Your task to perform on an android device: change notifications settings Image 0: 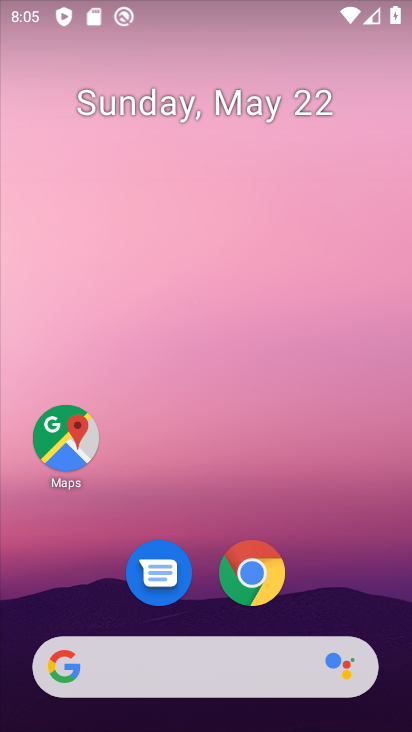
Step 0: click (245, 38)
Your task to perform on an android device: change notifications settings Image 1: 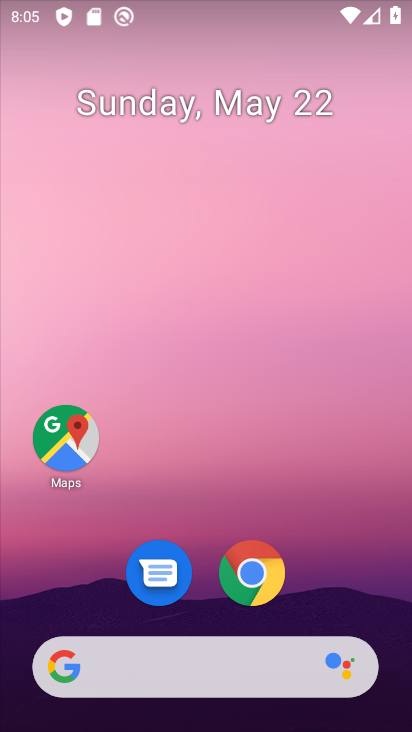
Step 1: drag from (196, 616) to (275, 93)
Your task to perform on an android device: change notifications settings Image 2: 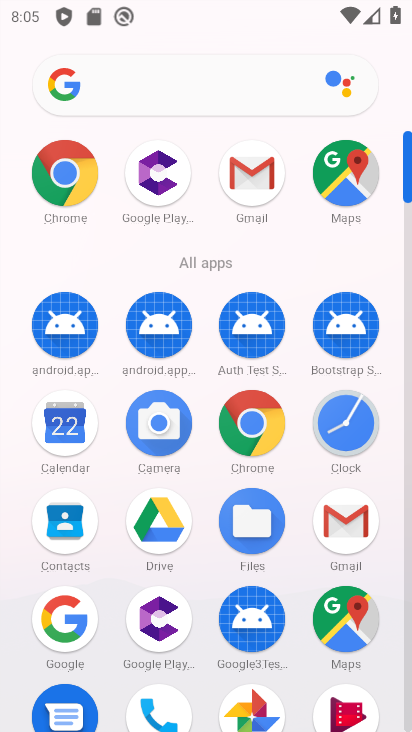
Step 2: drag from (208, 683) to (213, 182)
Your task to perform on an android device: change notifications settings Image 3: 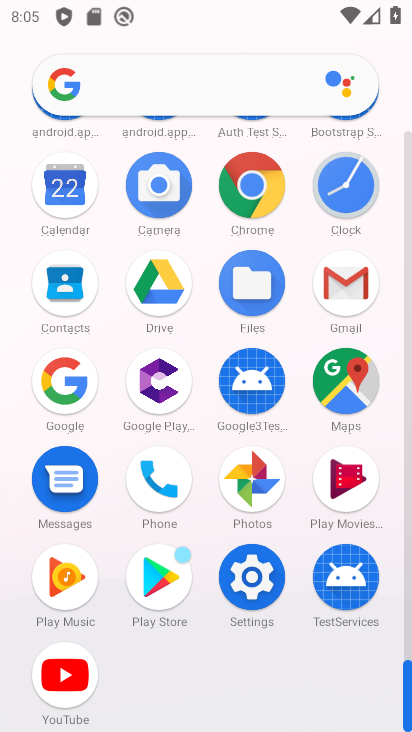
Step 3: click (251, 579)
Your task to perform on an android device: change notifications settings Image 4: 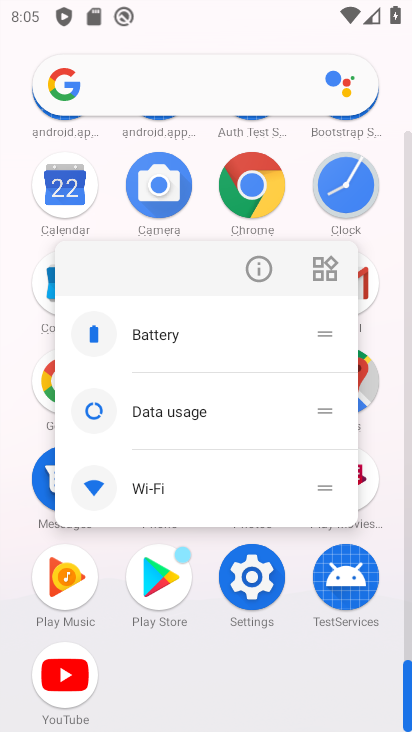
Step 4: click (268, 272)
Your task to perform on an android device: change notifications settings Image 5: 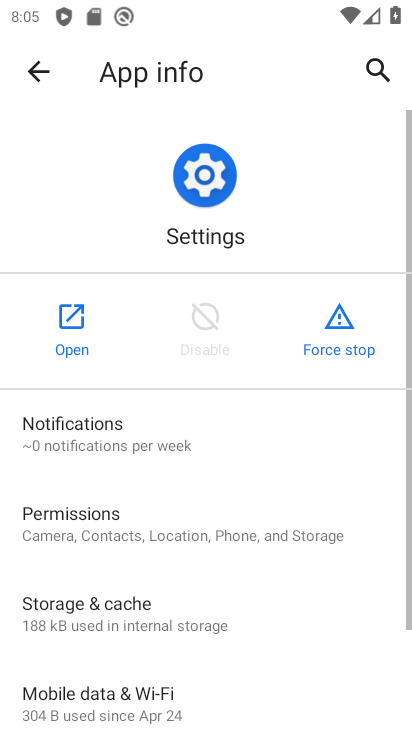
Step 5: click (75, 332)
Your task to perform on an android device: change notifications settings Image 6: 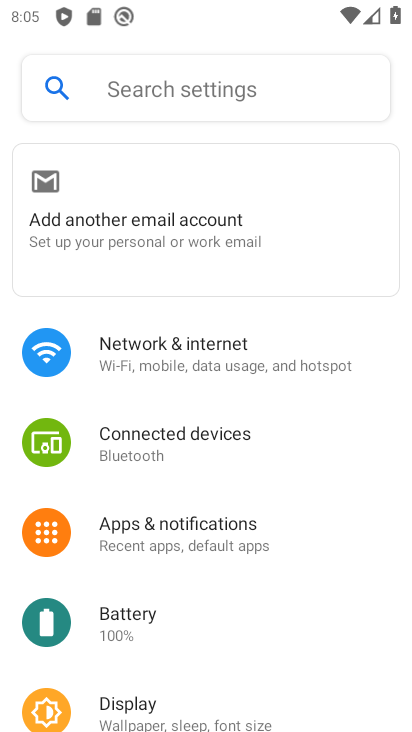
Step 6: click (168, 531)
Your task to perform on an android device: change notifications settings Image 7: 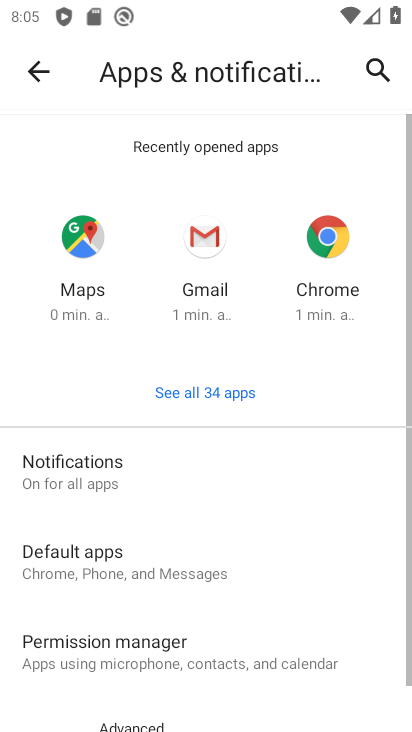
Step 7: drag from (204, 553) to (283, 148)
Your task to perform on an android device: change notifications settings Image 8: 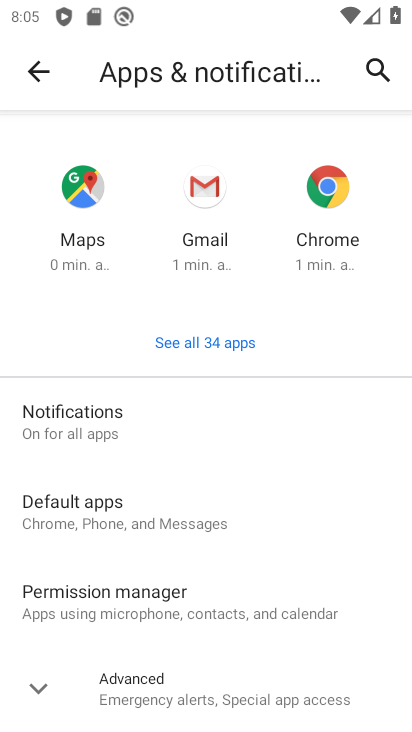
Step 8: click (155, 442)
Your task to perform on an android device: change notifications settings Image 9: 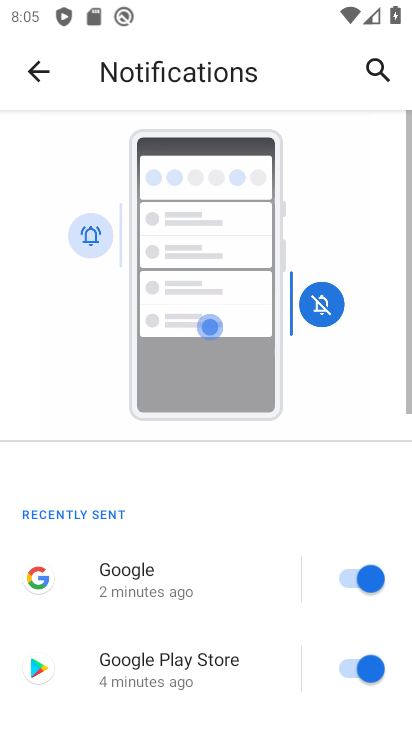
Step 9: drag from (218, 515) to (293, 71)
Your task to perform on an android device: change notifications settings Image 10: 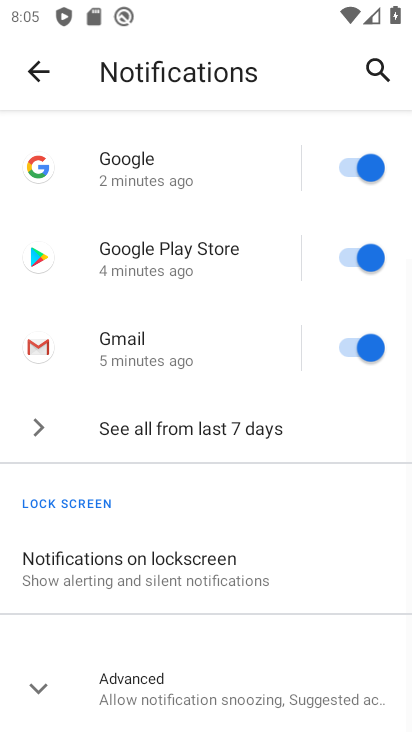
Step 10: drag from (270, 619) to (321, 139)
Your task to perform on an android device: change notifications settings Image 11: 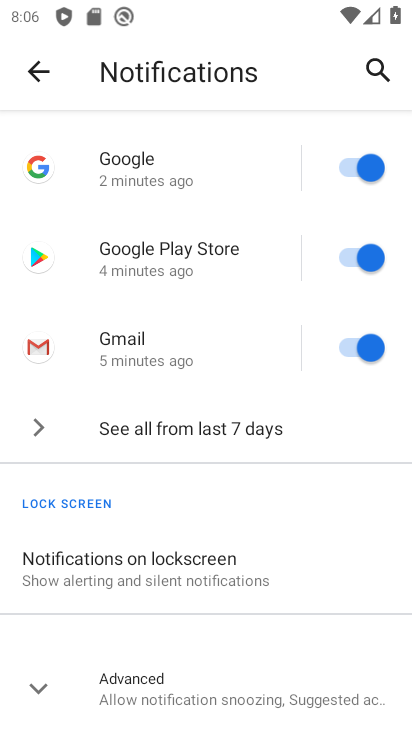
Step 11: drag from (227, 263) to (375, 729)
Your task to perform on an android device: change notifications settings Image 12: 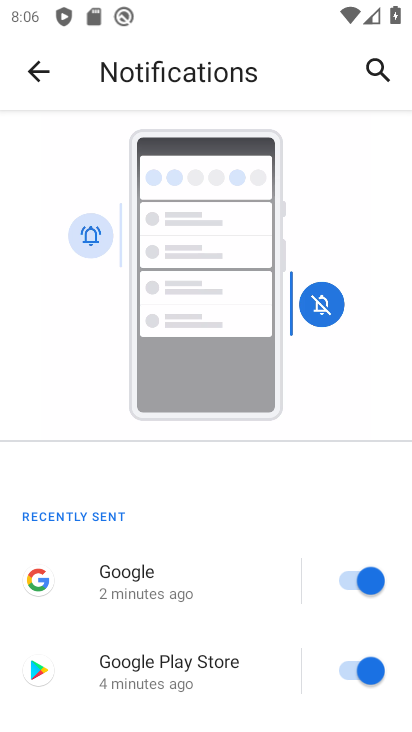
Step 12: drag from (194, 638) to (275, 273)
Your task to perform on an android device: change notifications settings Image 13: 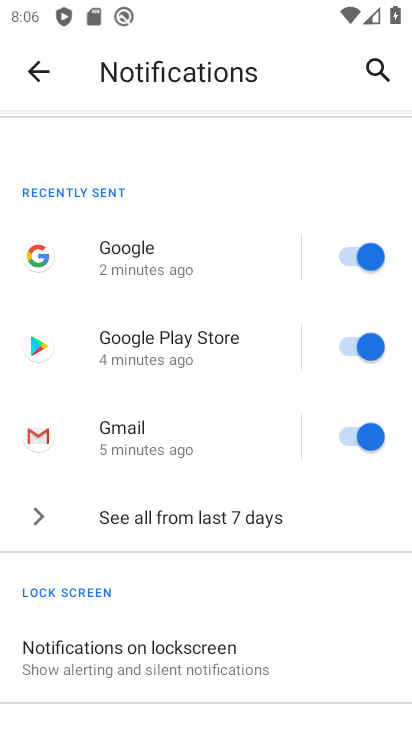
Step 13: click (354, 354)
Your task to perform on an android device: change notifications settings Image 14: 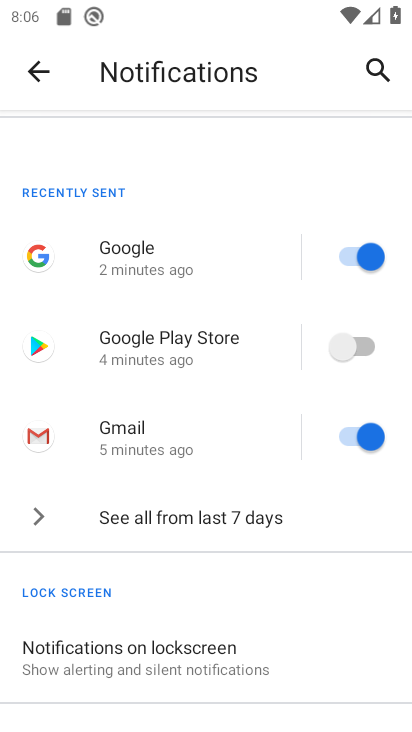
Step 14: task complete